Your task to perform on an android device: turn on showing notifications on the lock screen Image 0: 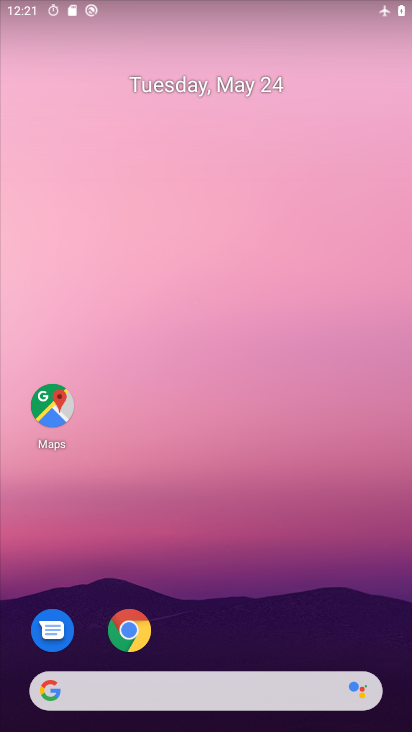
Step 0: drag from (196, 637) to (275, 4)
Your task to perform on an android device: turn on showing notifications on the lock screen Image 1: 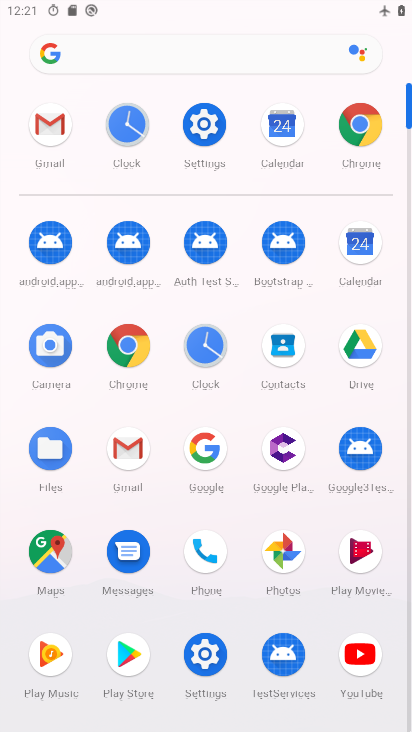
Step 1: click (205, 132)
Your task to perform on an android device: turn on showing notifications on the lock screen Image 2: 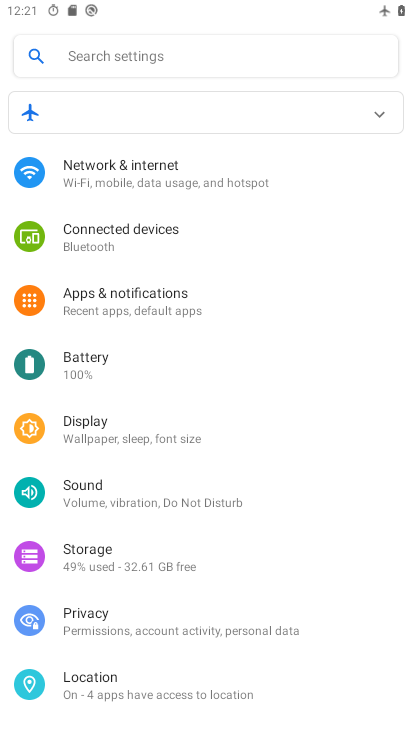
Step 2: click (136, 307)
Your task to perform on an android device: turn on showing notifications on the lock screen Image 3: 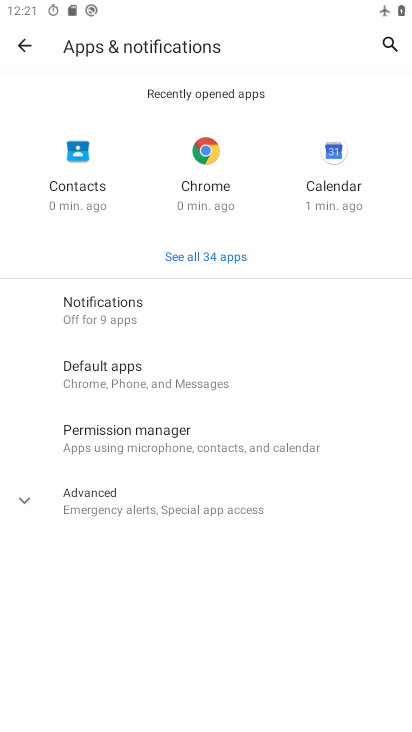
Step 3: click (130, 312)
Your task to perform on an android device: turn on showing notifications on the lock screen Image 4: 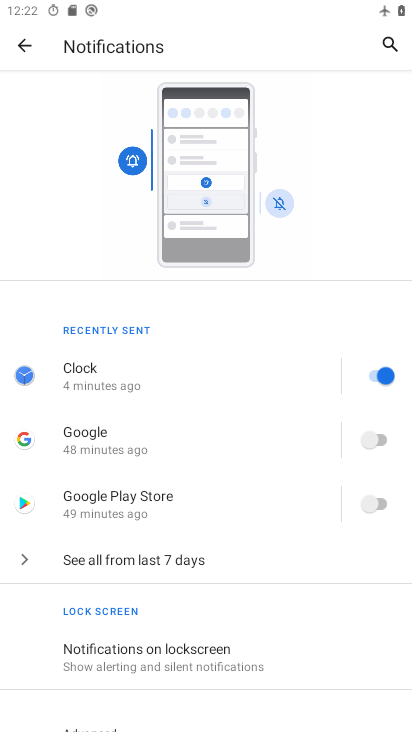
Step 4: drag from (194, 623) to (263, 396)
Your task to perform on an android device: turn on showing notifications on the lock screen Image 5: 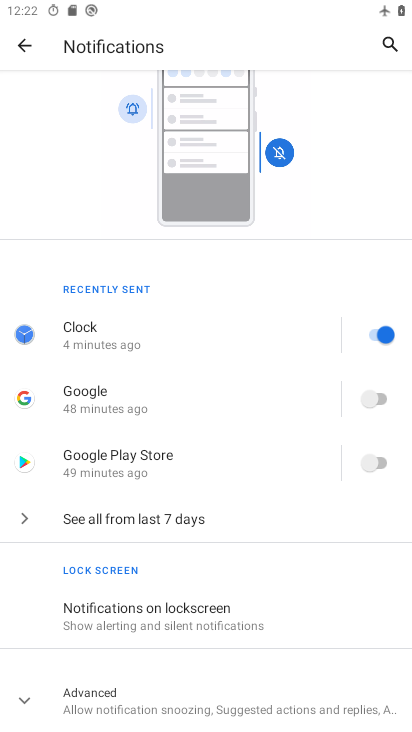
Step 5: click (246, 625)
Your task to perform on an android device: turn on showing notifications on the lock screen Image 6: 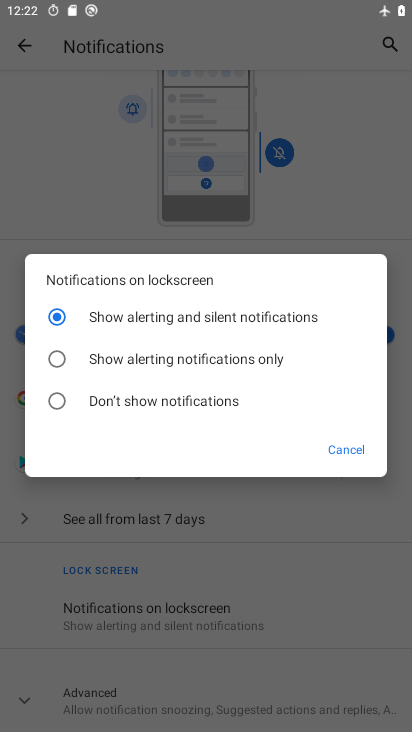
Step 6: task complete